Your task to perform on an android device: turn off location Image 0: 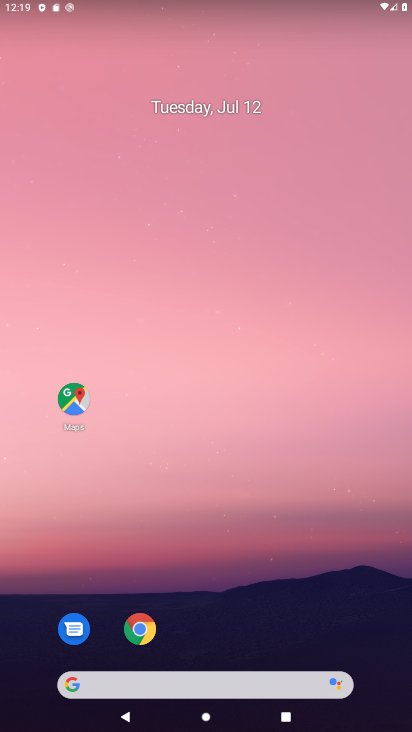
Step 0: drag from (304, 676) to (215, 2)
Your task to perform on an android device: turn off location Image 1: 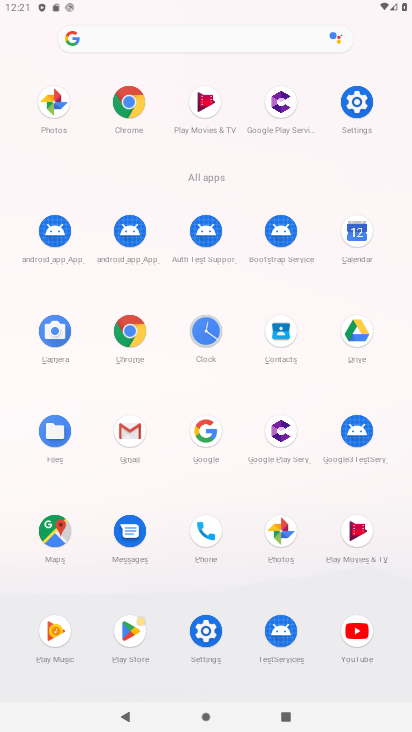
Step 1: click (355, 109)
Your task to perform on an android device: turn off location Image 2: 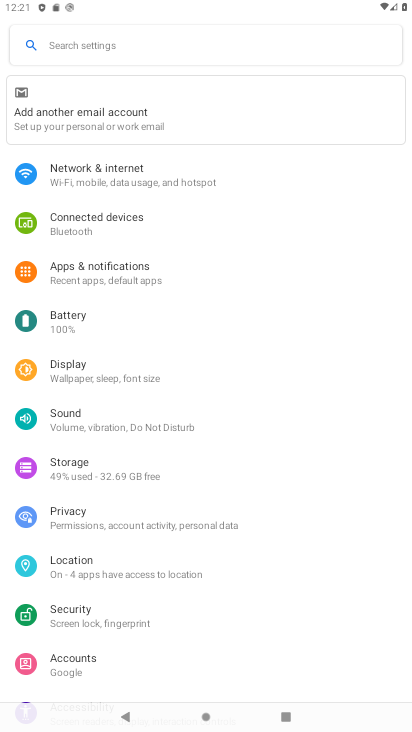
Step 2: click (63, 566)
Your task to perform on an android device: turn off location Image 3: 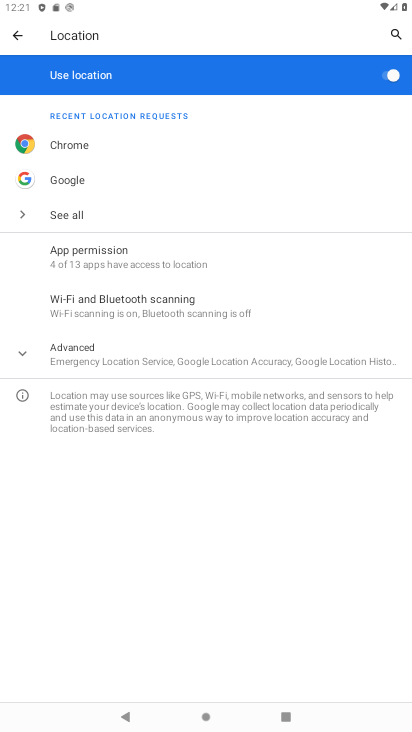
Step 3: click (35, 354)
Your task to perform on an android device: turn off location Image 4: 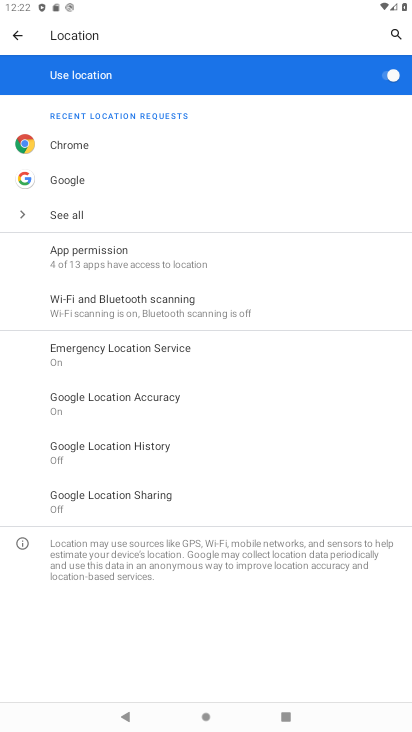
Step 4: click (353, 64)
Your task to perform on an android device: turn off location Image 5: 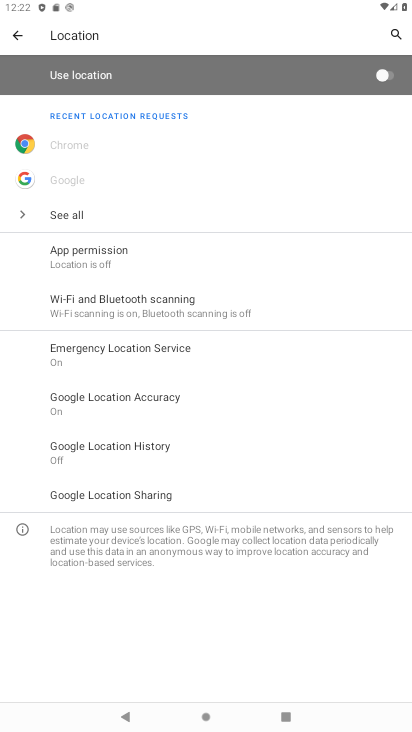
Step 5: task complete